Your task to perform on an android device: What is the news today? Image 0: 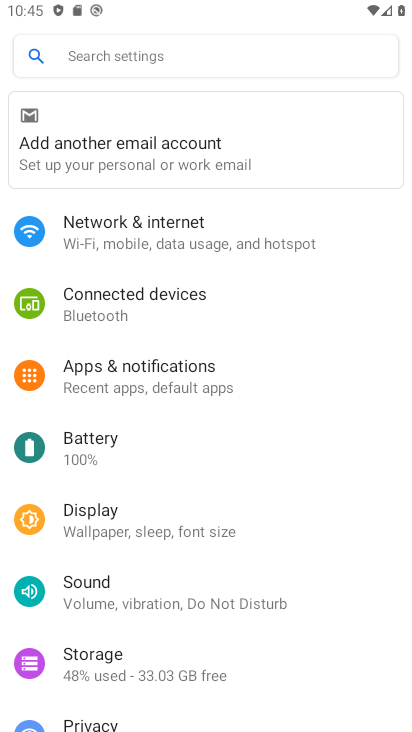
Step 0: press home button
Your task to perform on an android device: What is the news today? Image 1: 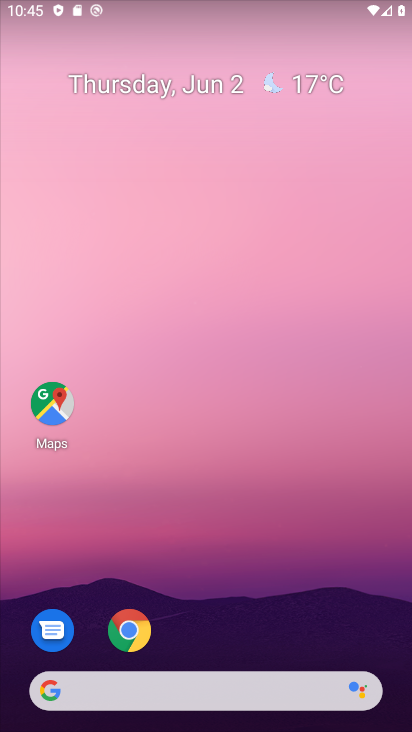
Step 1: click (156, 687)
Your task to perform on an android device: What is the news today? Image 2: 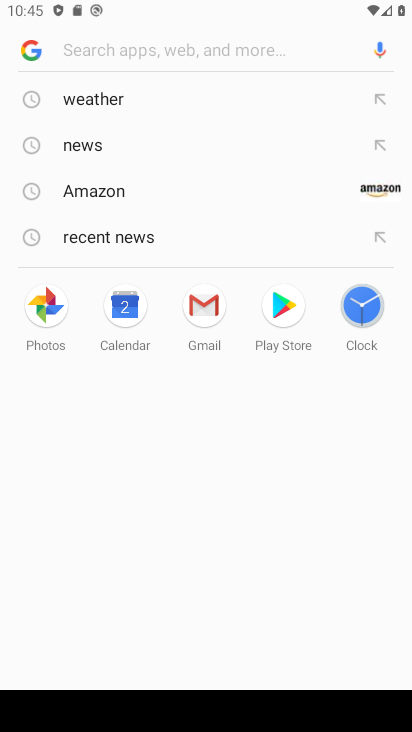
Step 2: type "news today ?"
Your task to perform on an android device: What is the news today? Image 3: 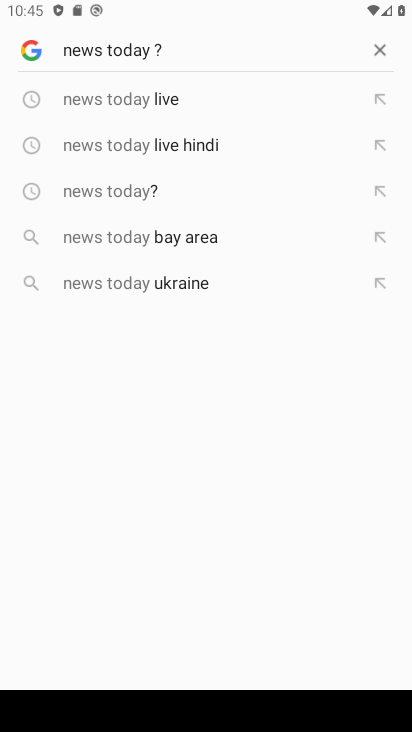
Step 3: click (124, 202)
Your task to perform on an android device: What is the news today? Image 4: 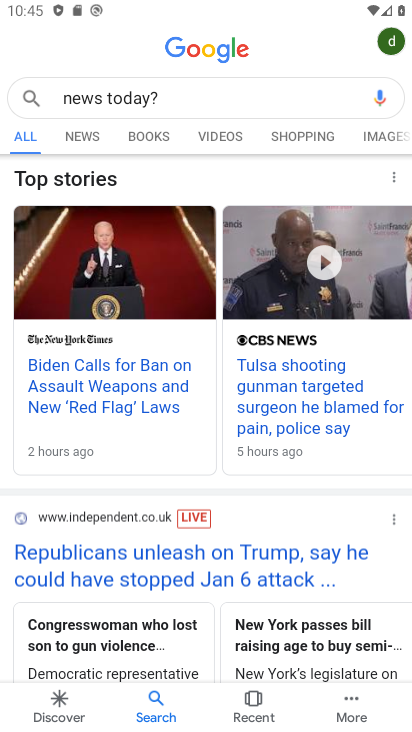
Step 4: task complete